Your task to perform on an android device: Show me popular games on the Play Store Image 0: 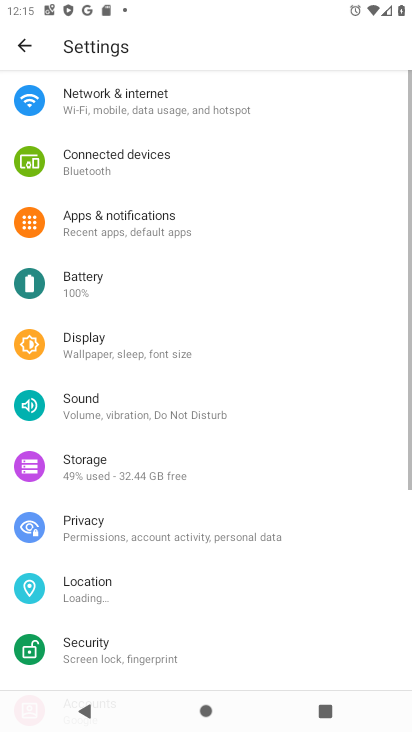
Step 0: press home button
Your task to perform on an android device: Show me popular games on the Play Store Image 1: 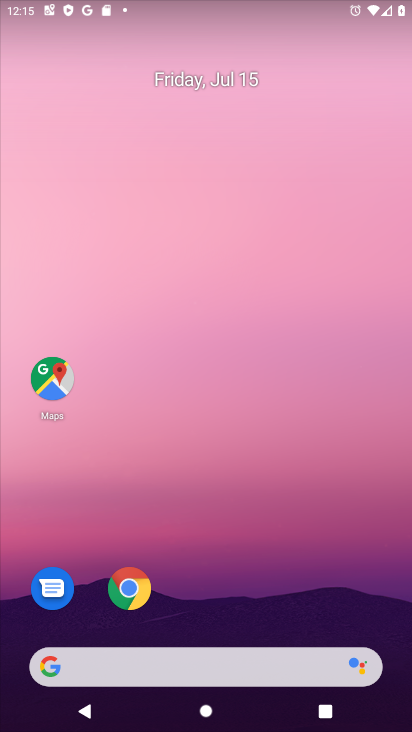
Step 1: drag from (275, 632) to (354, 17)
Your task to perform on an android device: Show me popular games on the Play Store Image 2: 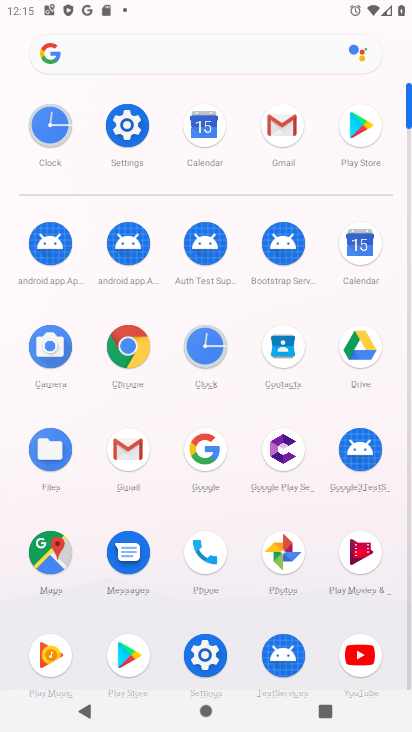
Step 2: click (124, 650)
Your task to perform on an android device: Show me popular games on the Play Store Image 3: 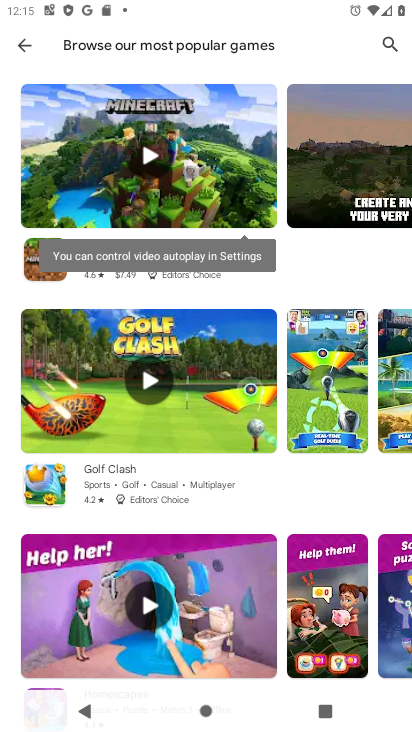
Step 3: task complete